Your task to perform on an android device: check google app version Image 0: 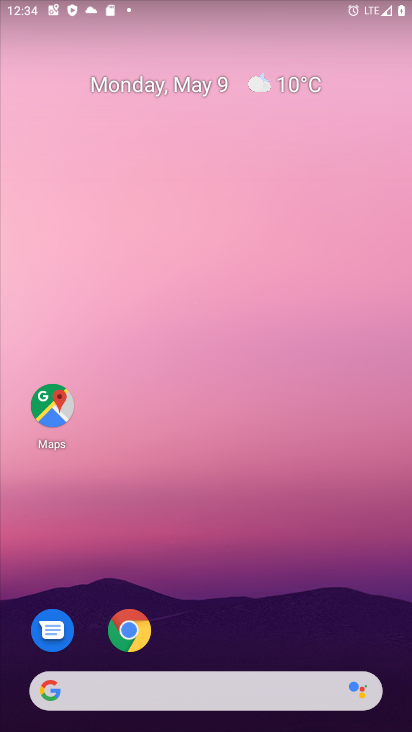
Step 0: drag from (345, 608) to (259, 114)
Your task to perform on an android device: check google app version Image 1: 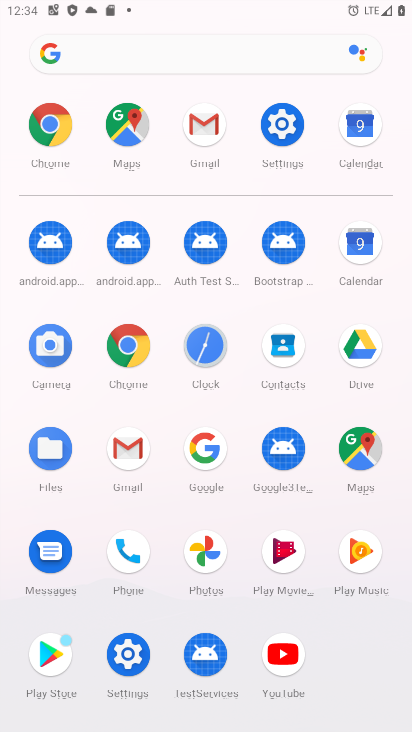
Step 1: click (206, 454)
Your task to perform on an android device: check google app version Image 2: 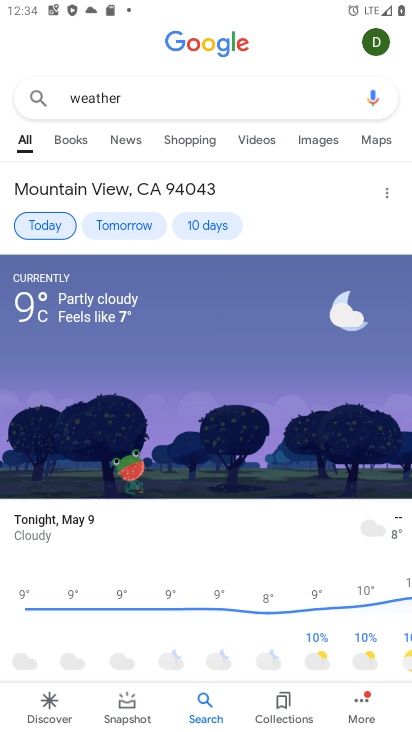
Step 2: press back button
Your task to perform on an android device: check google app version Image 3: 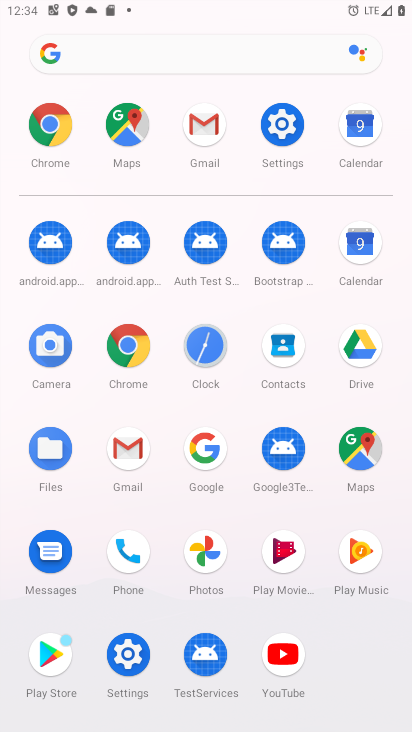
Step 3: click (199, 455)
Your task to perform on an android device: check google app version Image 4: 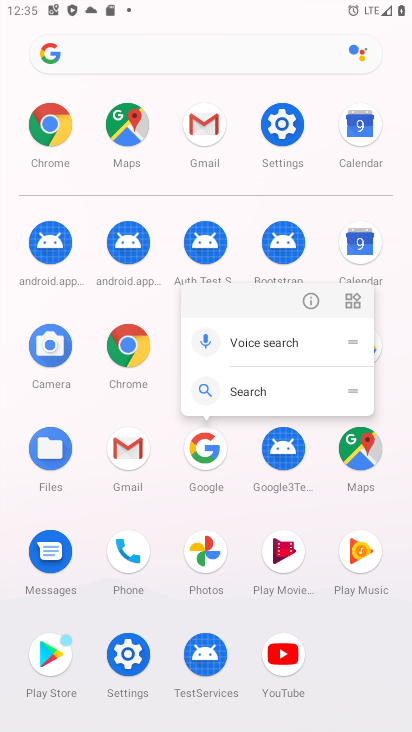
Step 4: click (319, 295)
Your task to perform on an android device: check google app version Image 5: 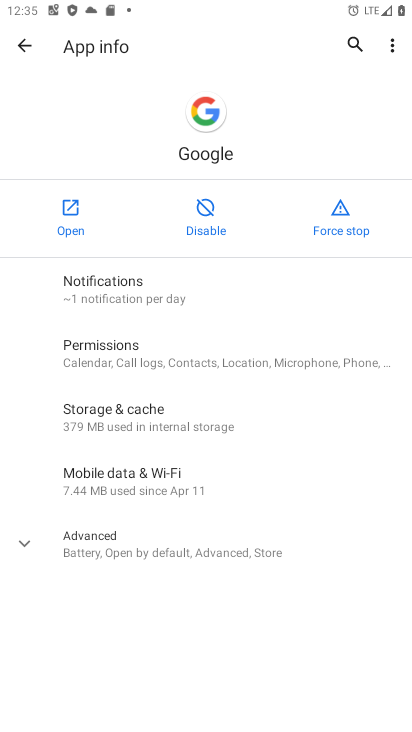
Step 5: click (116, 538)
Your task to perform on an android device: check google app version Image 6: 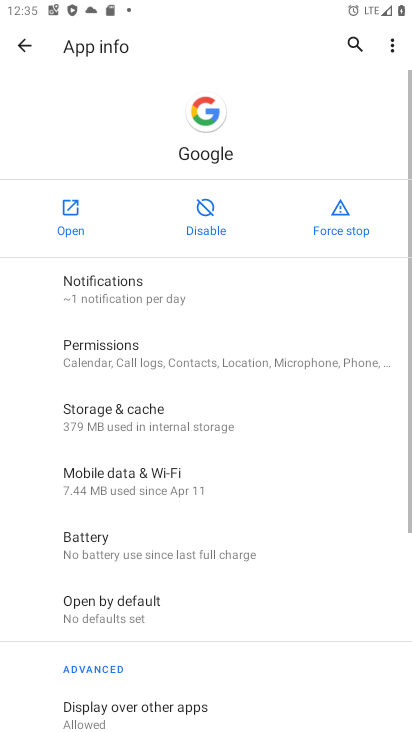
Step 6: task complete